Your task to perform on an android device: What's the weather going to be tomorrow? Image 0: 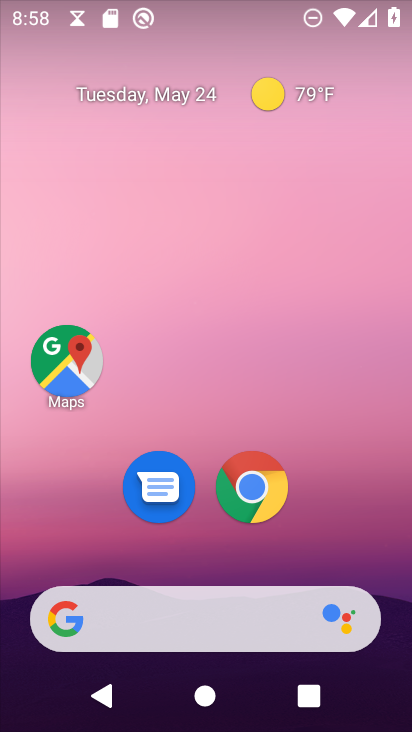
Step 0: click (181, 617)
Your task to perform on an android device: What's the weather going to be tomorrow? Image 1: 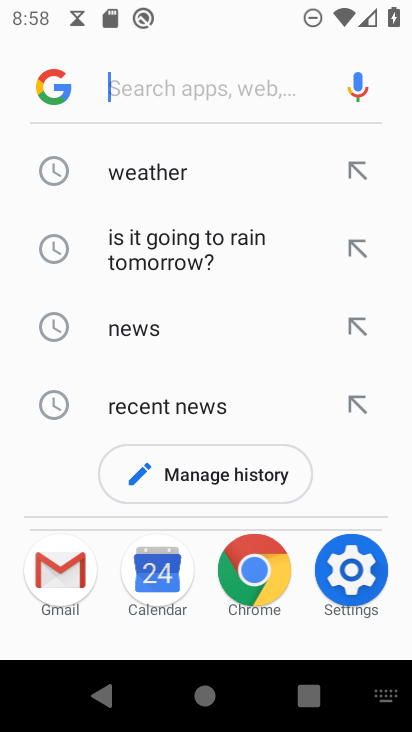
Step 1: click (196, 175)
Your task to perform on an android device: What's the weather going to be tomorrow? Image 2: 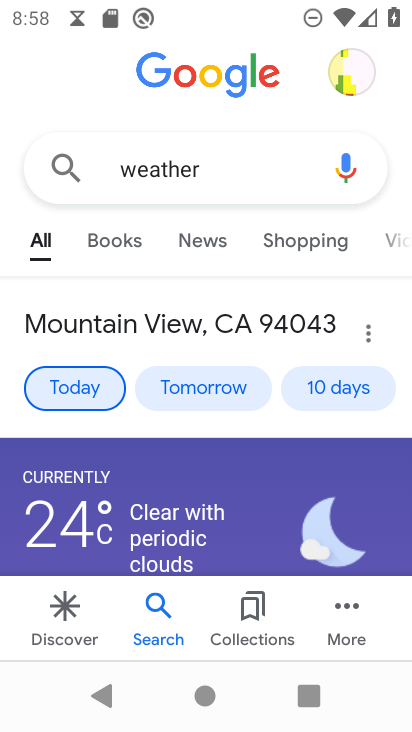
Step 2: task complete